Your task to perform on an android device: Is it going to rain today? Image 0: 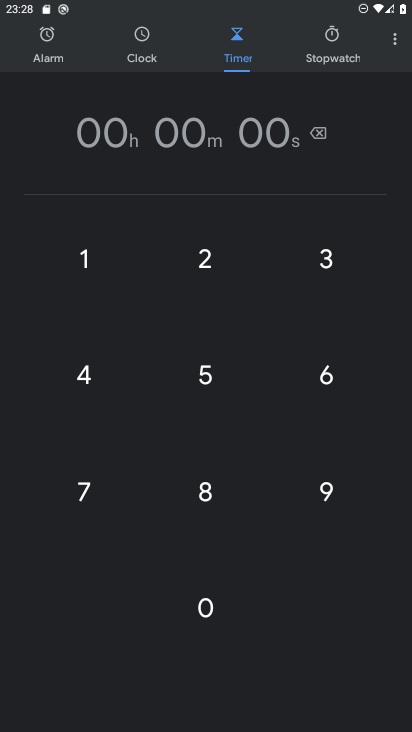
Step 0: press home button
Your task to perform on an android device: Is it going to rain today? Image 1: 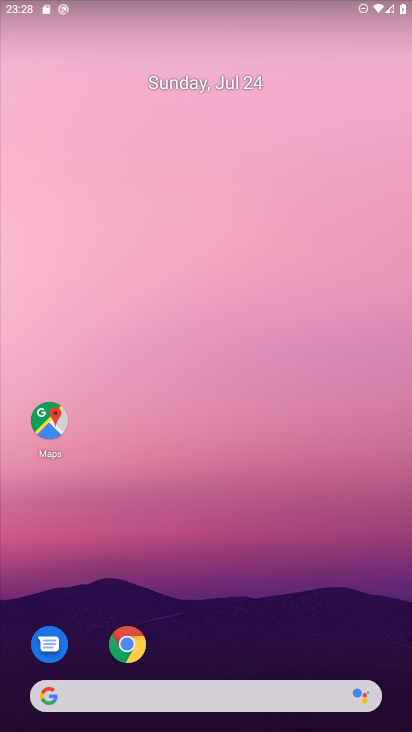
Step 1: click (179, 699)
Your task to perform on an android device: Is it going to rain today? Image 2: 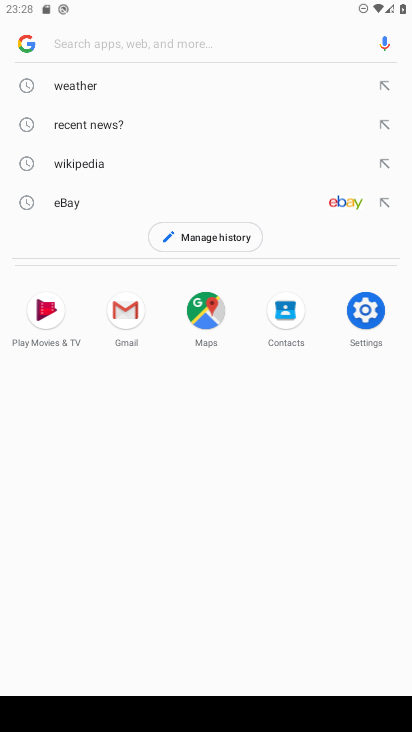
Step 2: click (72, 85)
Your task to perform on an android device: Is it going to rain today? Image 3: 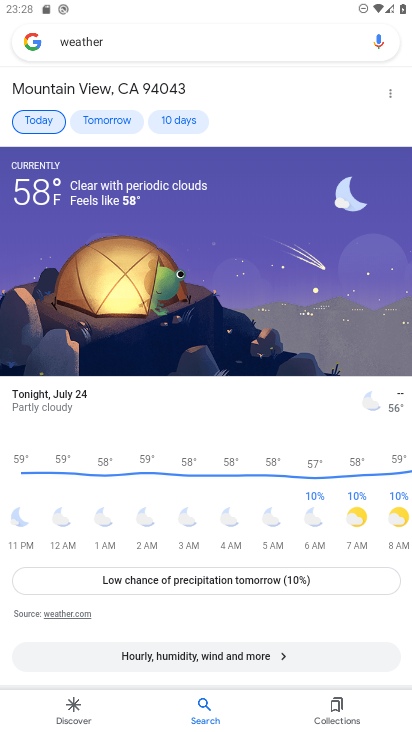
Step 3: task complete